Your task to perform on an android device: Go to wifi settings Image 0: 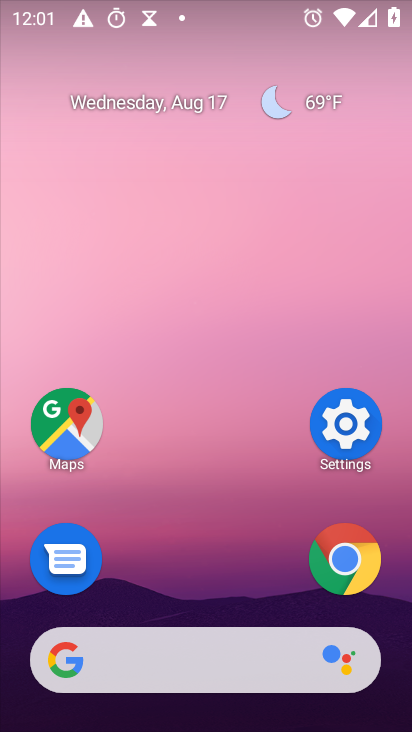
Step 0: click (337, 423)
Your task to perform on an android device: Go to wifi settings Image 1: 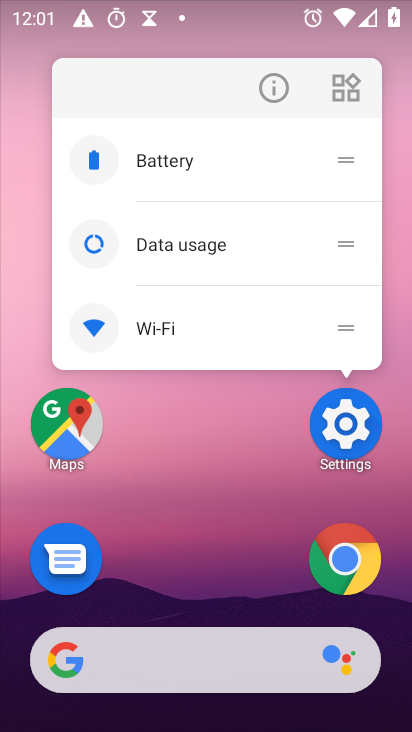
Step 1: click (339, 412)
Your task to perform on an android device: Go to wifi settings Image 2: 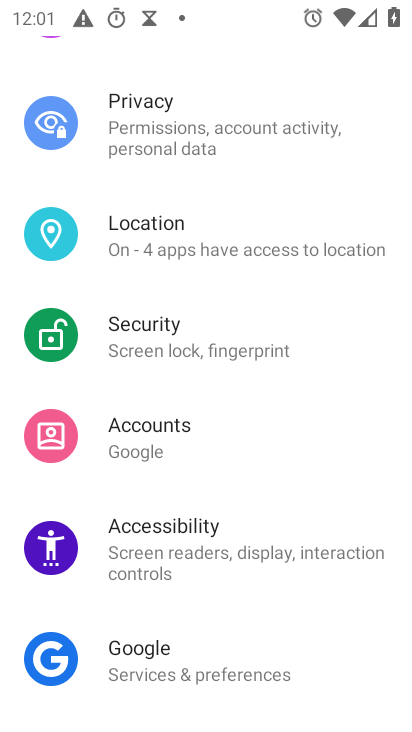
Step 2: drag from (349, 69) to (258, 601)
Your task to perform on an android device: Go to wifi settings Image 3: 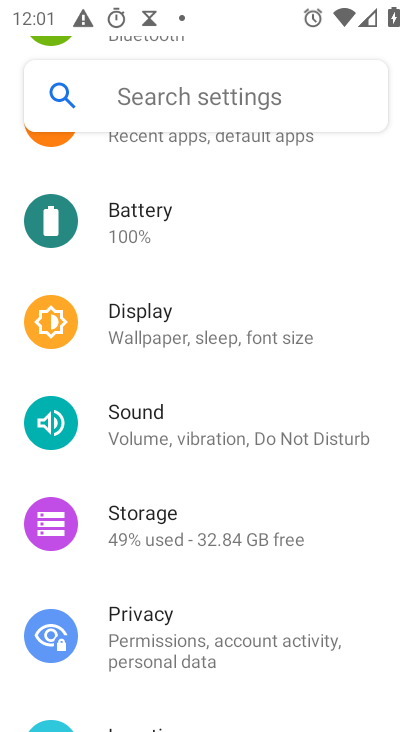
Step 3: drag from (295, 228) to (233, 645)
Your task to perform on an android device: Go to wifi settings Image 4: 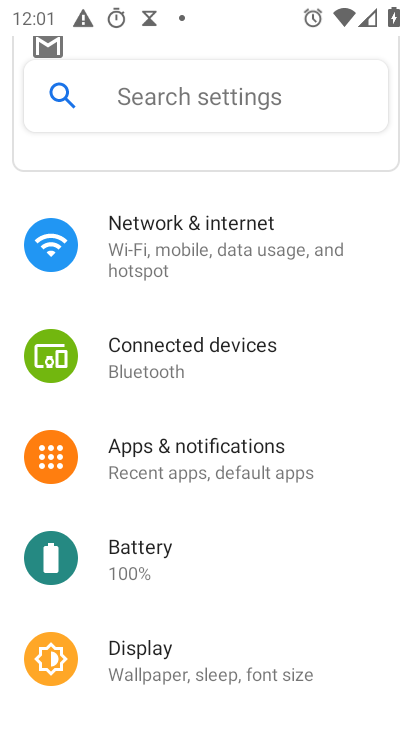
Step 4: click (212, 243)
Your task to perform on an android device: Go to wifi settings Image 5: 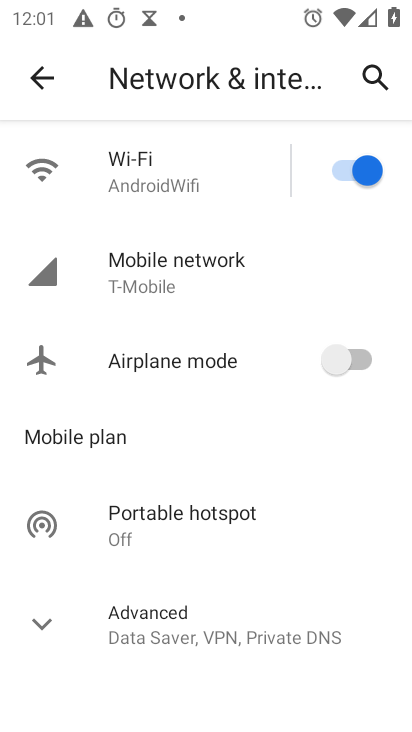
Step 5: click (147, 184)
Your task to perform on an android device: Go to wifi settings Image 6: 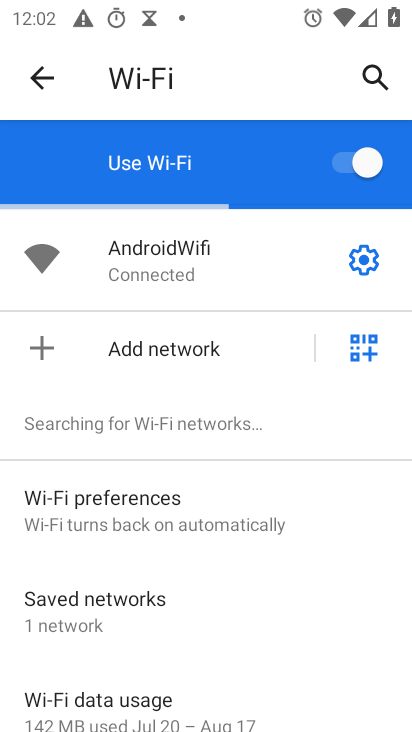
Step 6: task complete